Your task to perform on an android device: turn smart compose on in the gmail app Image 0: 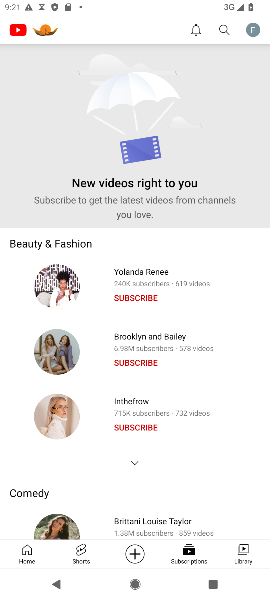
Step 0: press home button
Your task to perform on an android device: turn smart compose on in the gmail app Image 1: 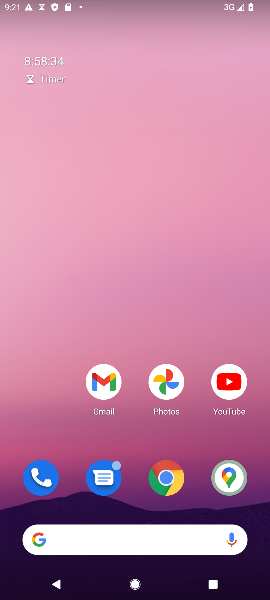
Step 1: drag from (193, 437) to (170, 151)
Your task to perform on an android device: turn smart compose on in the gmail app Image 2: 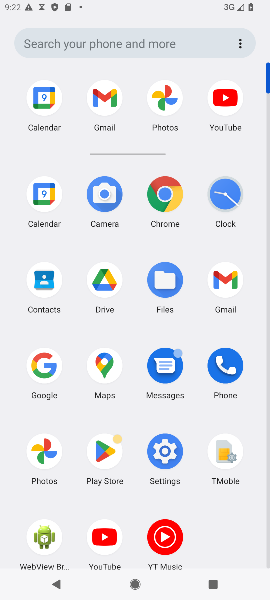
Step 2: click (91, 108)
Your task to perform on an android device: turn smart compose on in the gmail app Image 3: 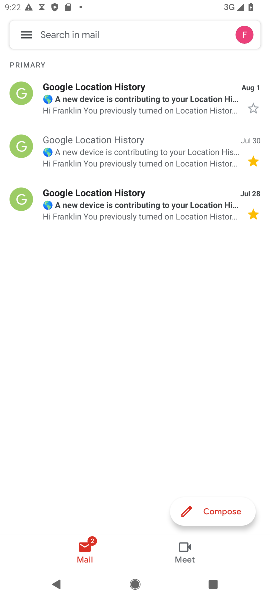
Step 3: click (29, 39)
Your task to perform on an android device: turn smart compose on in the gmail app Image 4: 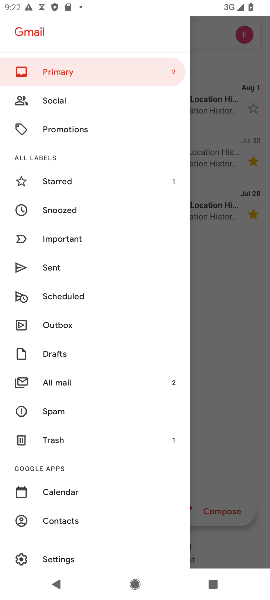
Step 4: click (84, 559)
Your task to perform on an android device: turn smart compose on in the gmail app Image 5: 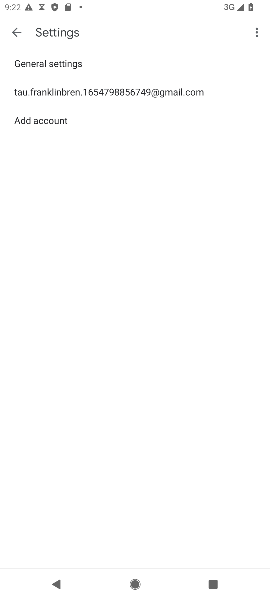
Step 5: click (138, 83)
Your task to perform on an android device: turn smart compose on in the gmail app Image 6: 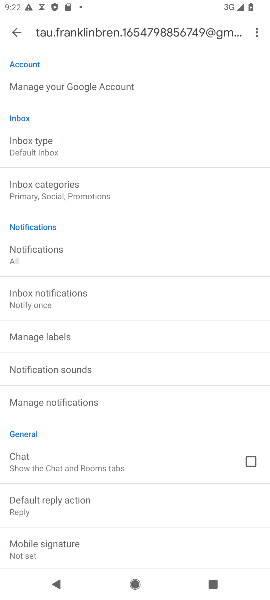
Step 6: task complete